Your task to perform on an android device: turn pop-ups off in chrome Image 0: 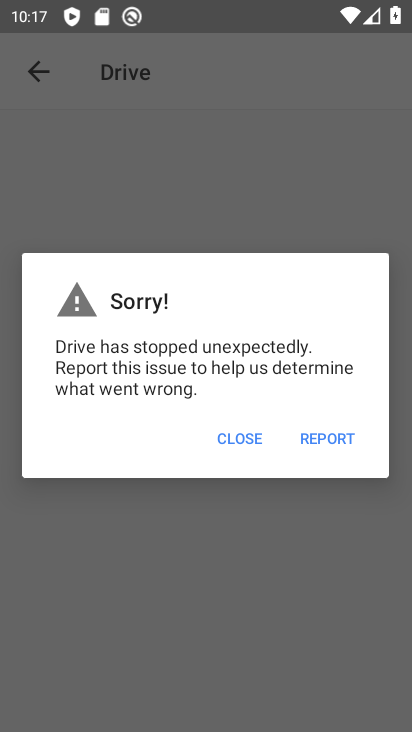
Step 0: press home button
Your task to perform on an android device: turn pop-ups off in chrome Image 1: 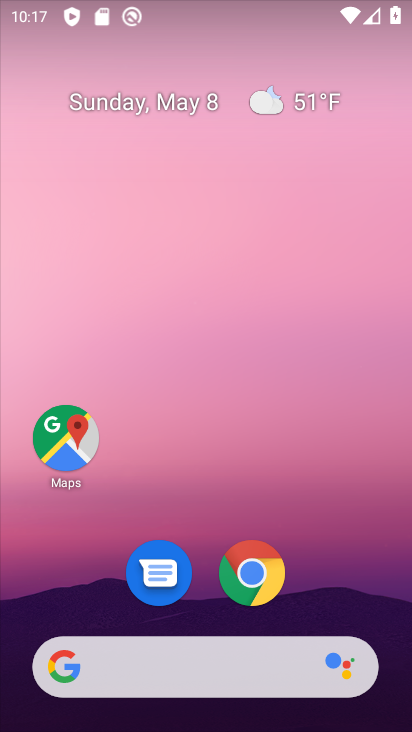
Step 1: click (264, 568)
Your task to perform on an android device: turn pop-ups off in chrome Image 2: 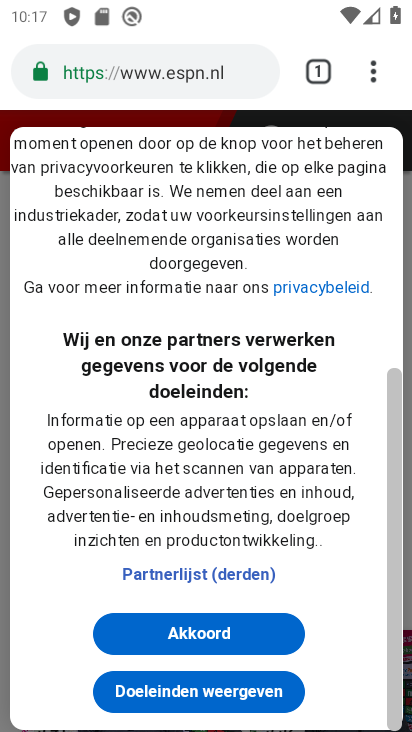
Step 2: click (366, 72)
Your task to perform on an android device: turn pop-ups off in chrome Image 3: 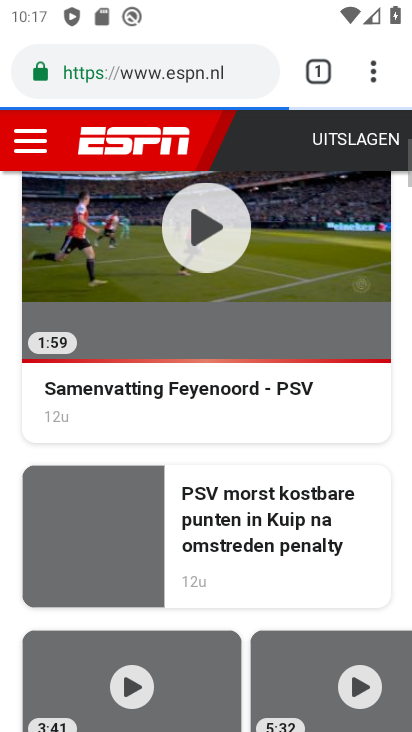
Step 3: click (377, 74)
Your task to perform on an android device: turn pop-ups off in chrome Image 4: 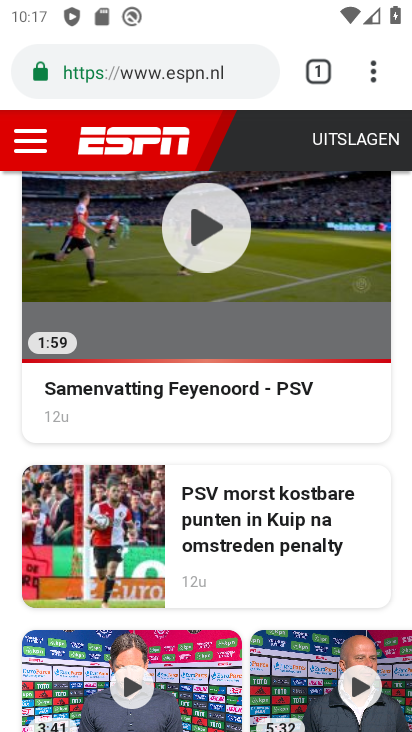
Step 4: click (377, 74)
Your task to perform on an android device: turn pop-ups off in chrome Image 5: 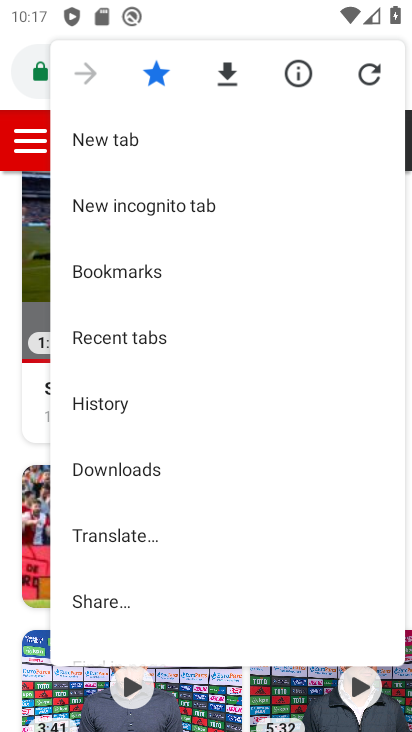
Step 5: drag from (184, 631) to (211, 226)
Your task to perform on an android device: turn pop-ups off in chrome Image 6: 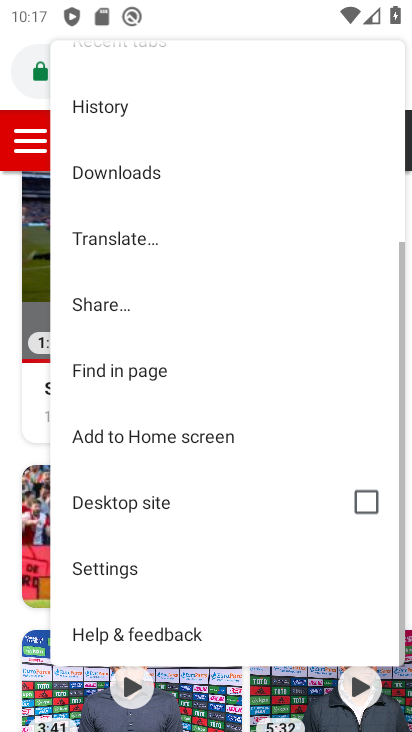
Step 6: click (118, 572)
Your task to perform on an android device: turn pop-ups off in chrome Image 7: 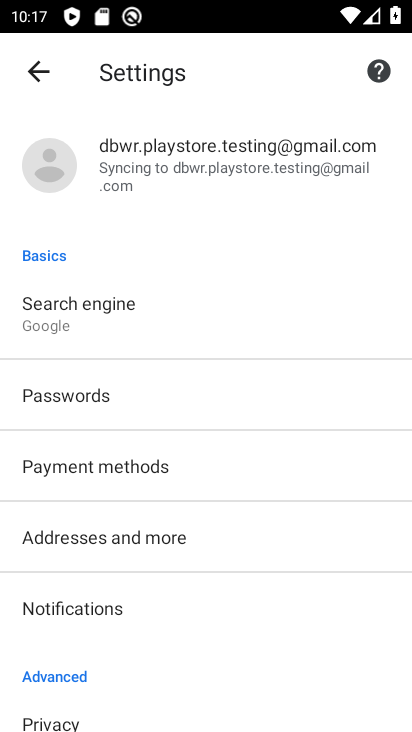
Step 7: drag from (113, 705) to (118, 291)
Your task to perform on an android device: turn pop-ups off in chrome Image 8: 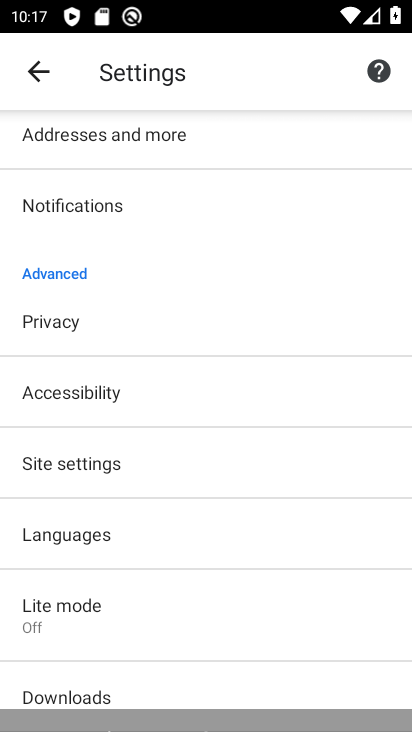
Step 8: click (76, 462)
Your task to perform on an android device: turn pop-ups off in chrome Image 9: 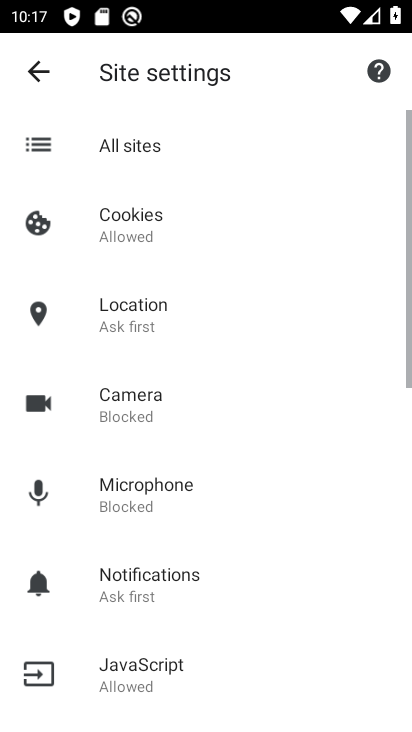
Step 9: drag from (92, 689) to (143, 268)
Your task to perform on an android device: turn pop-ups off in chrome Image 10: 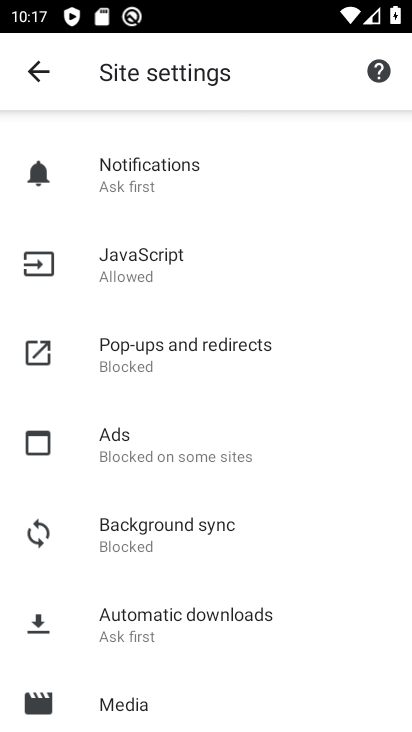
Step 10: drag from (141, 668) to (196, 280)
Your task to perform on an android device: turn pop-ups off in chrome Image 11: 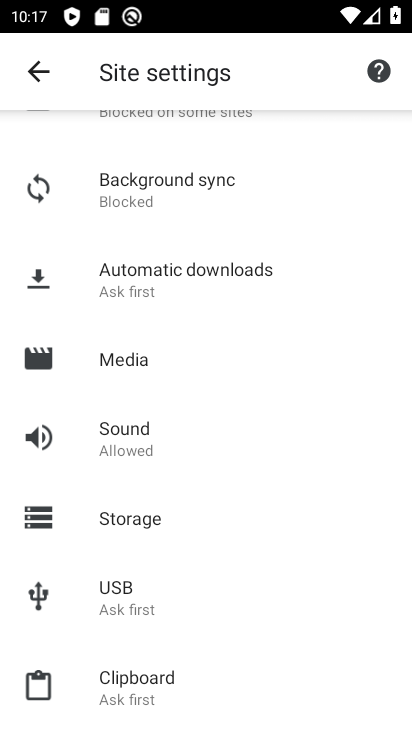
Step 11: drag from (184, 180) to (230, 562)
Your task to perform on an android device: turn pop-ups off in chrome Image 12: 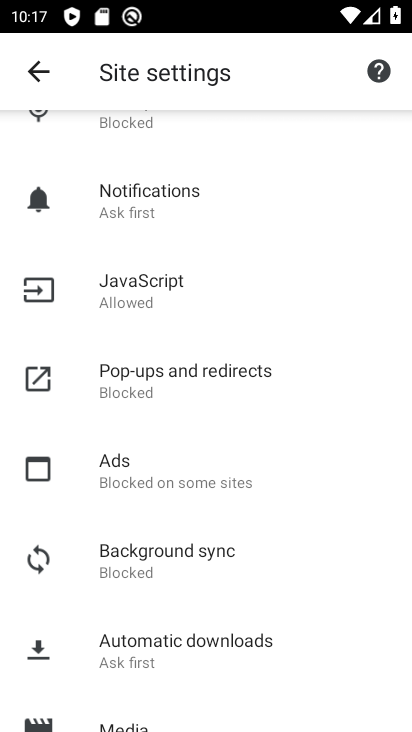
Step 12: click (190, 385)
Your task to perform on an android device: turn pop-ups off in chrome Image 13: 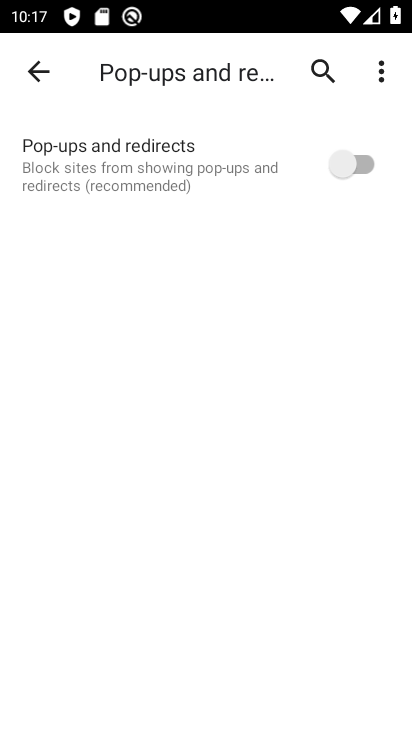
Step 13: task complete